Your task to perform on an android device: find which apps use the phone's location Image 0: 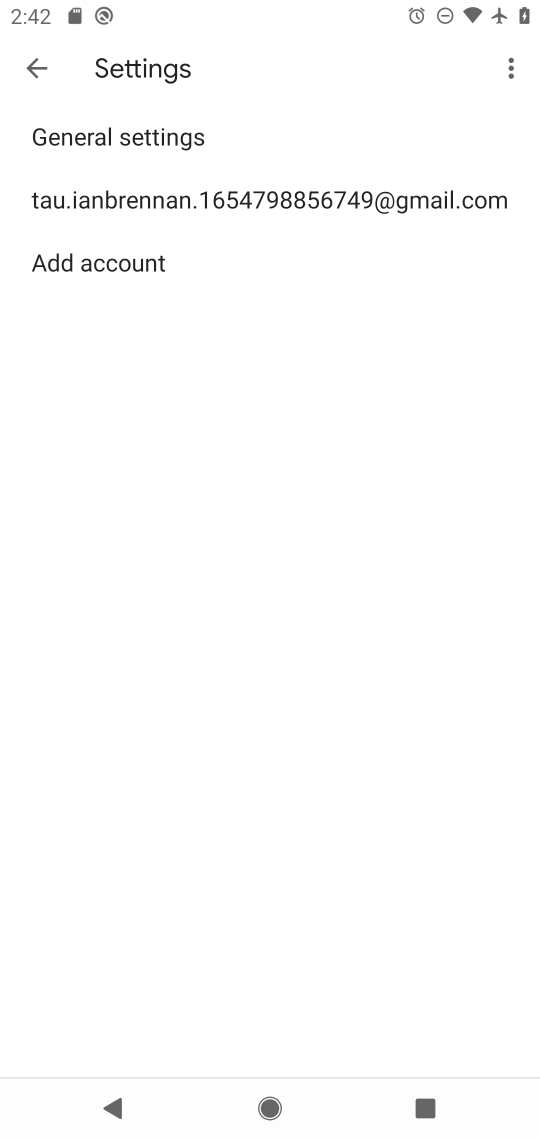
Step 0: press home button
Your task to perform on an android device: find which apps use the phone's location Image 1: 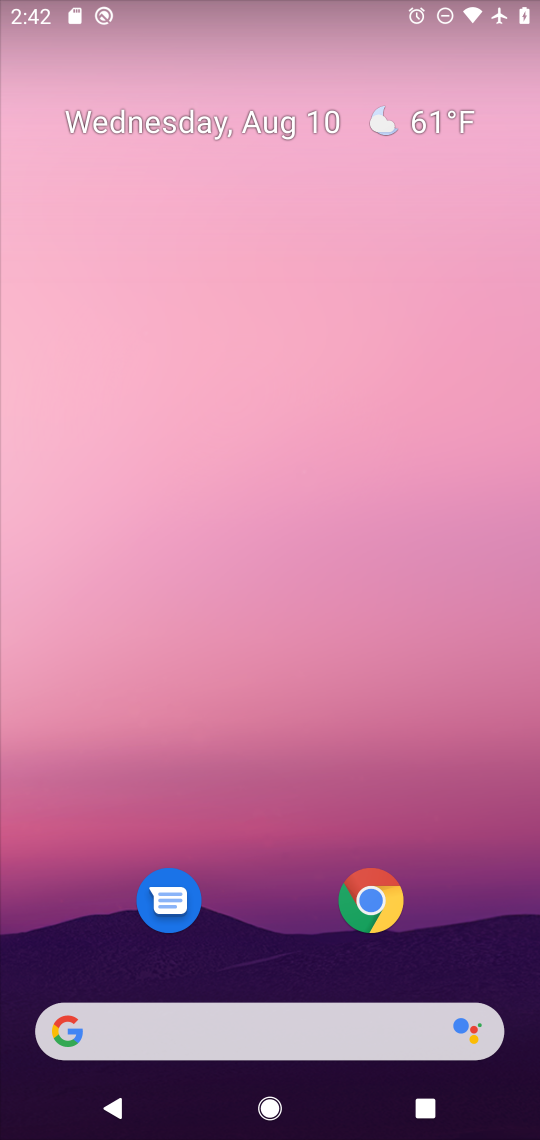
Step 1: drag from (287, 907) to (263, 26)
Your task to perform on an android device: find which apps use the phone's location Image 2: 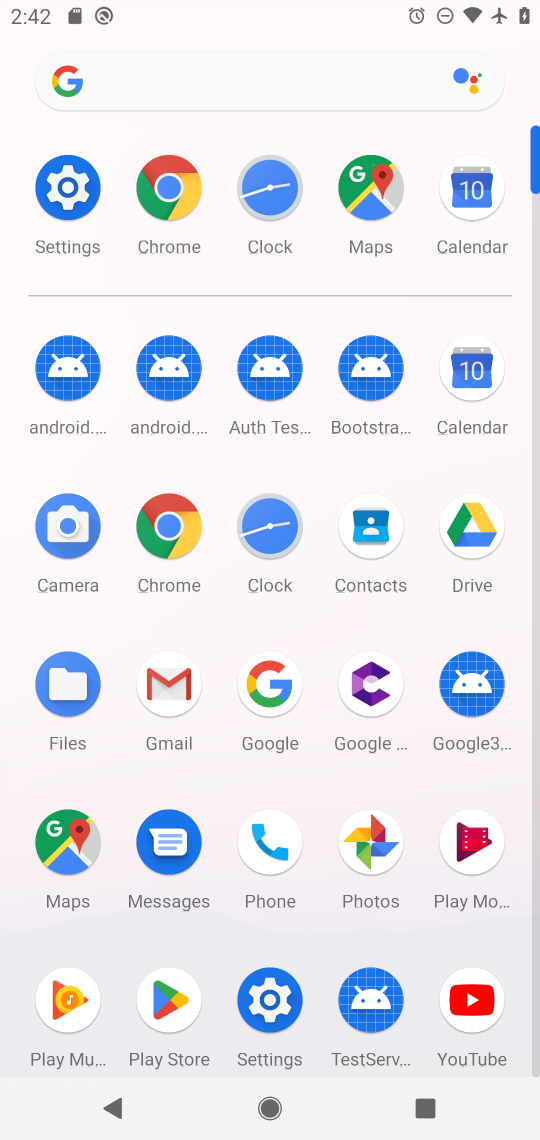
Step 2: click (71, 189)
Your task to perform on an android device: find which apps use the phone's location Image 3: 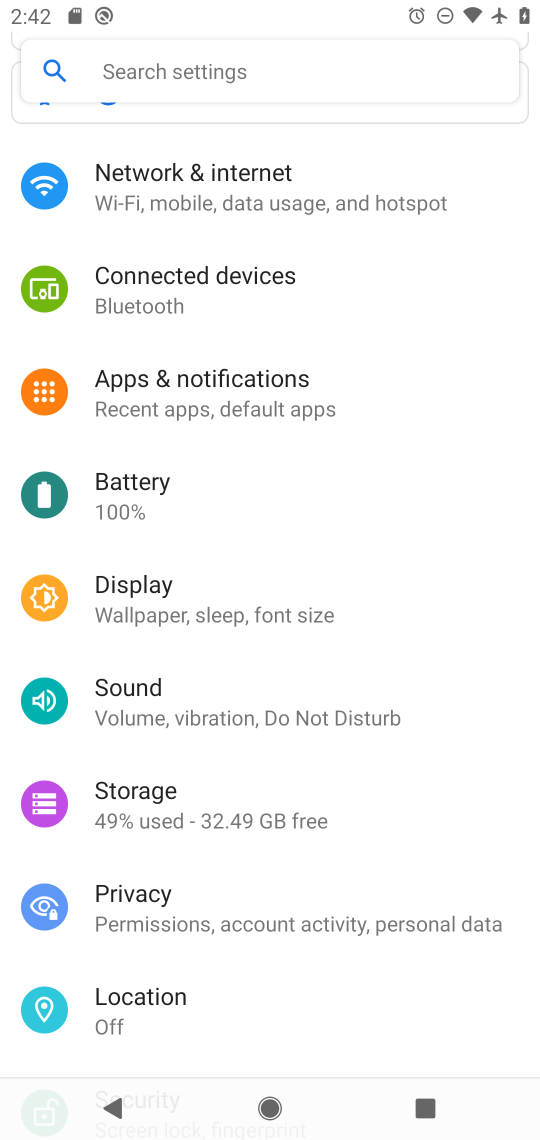
Step 3: click (181, 1018)
Your task to perform on an android device: find which apps use the phone's location Image 4: 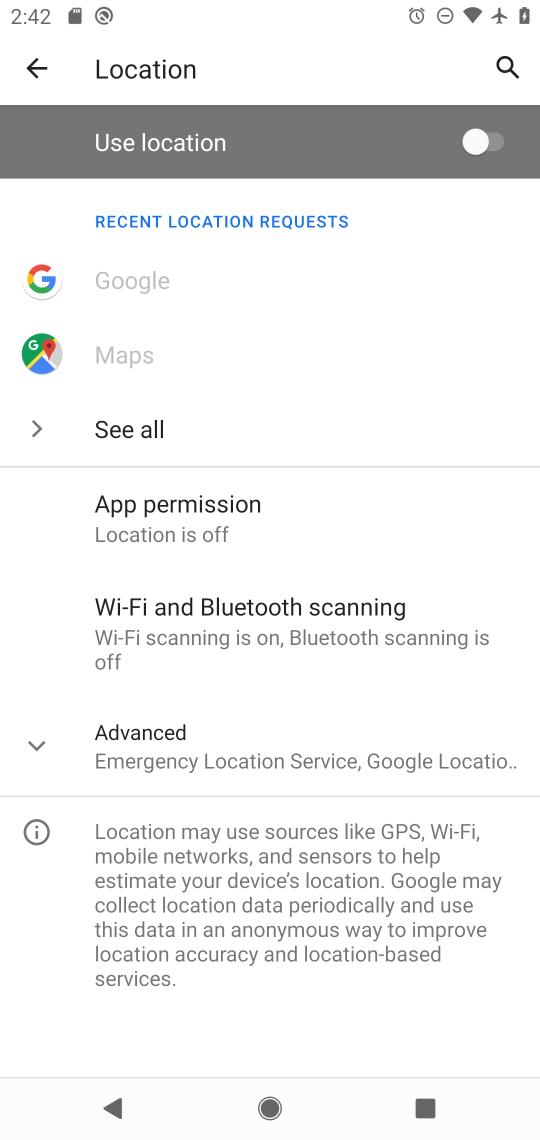
Step 4: click (199, 510)
Your task to perform on an android device: find which apps use the phone's location Image 5: 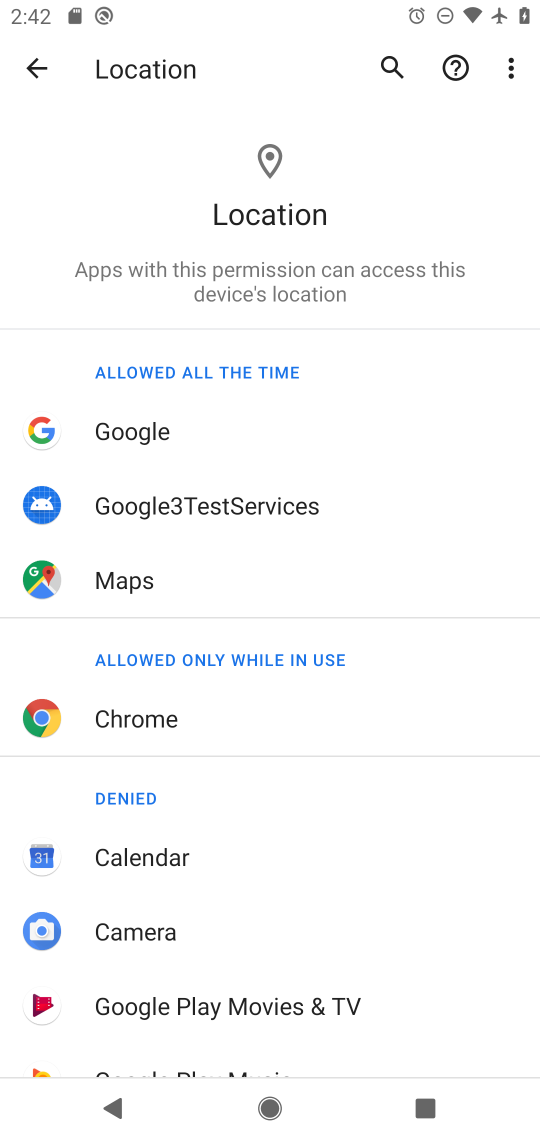
Step 5: task complete